Your task to perform on an android device: What's the news in Indonesia? Image 0: 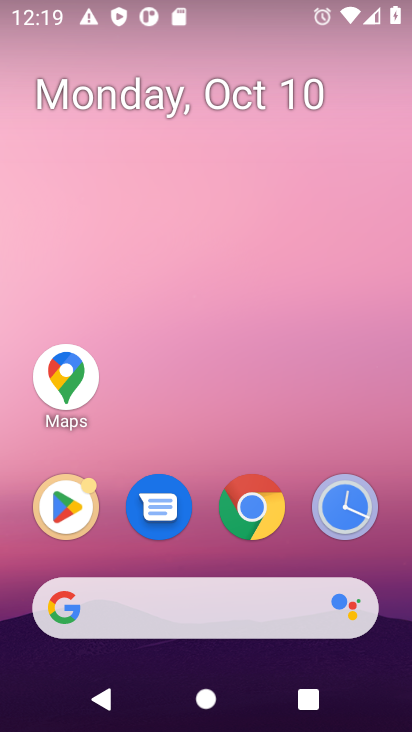
Step 0: press home button
Your task to perform on an android device: What's the news in Indonesia? Image 1: 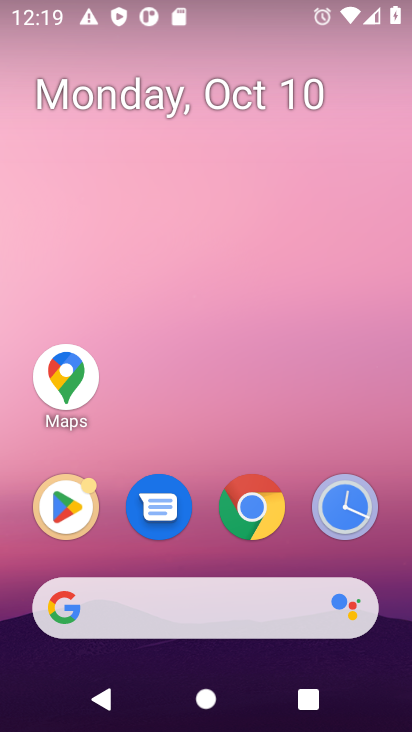
Step 1: click (232, 606)
Your task to perform on an android device: What's the news in Indonesia? Image 2: 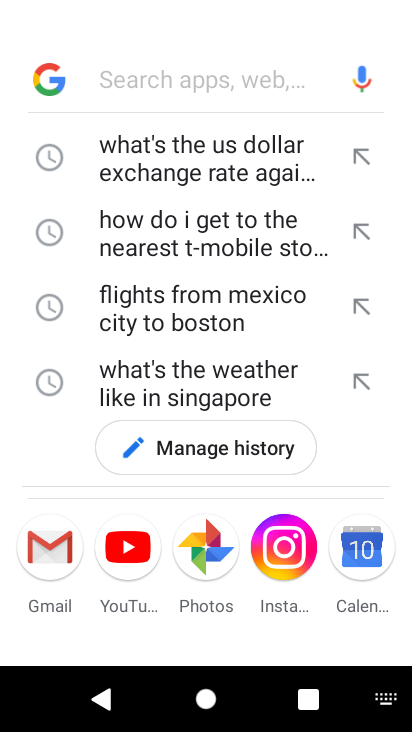
Step 2: type "What's the news in Indonesia"
Your task to perform on an android device: What's the news in Indonesia? Image 3: 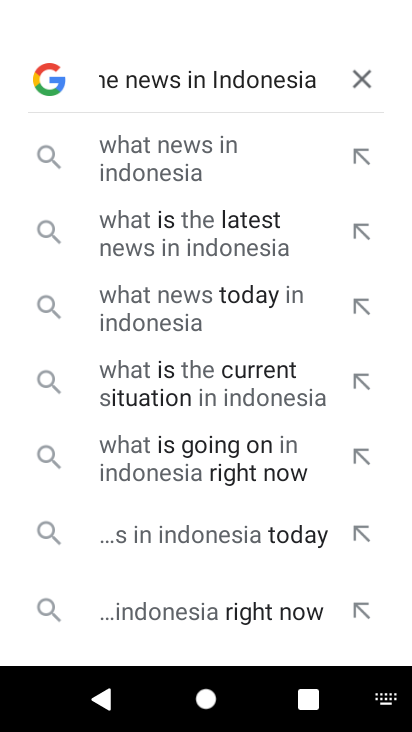
Step 3: press enter
Your task to perform on an android device: What's the news in Indonesia? Image 4: 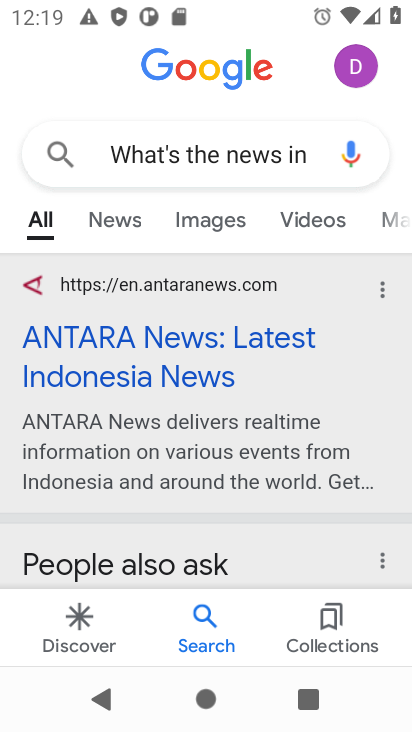
Step 4: click (165, 362)
Your task to perform on an android device: What's the news in Indonesia? Image 5: 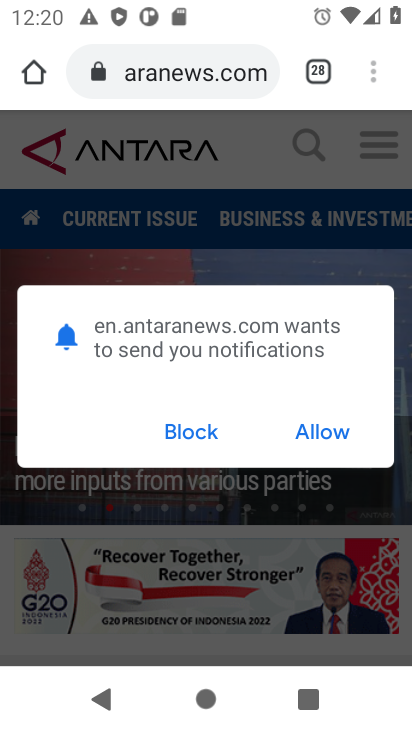
Step 5: click (177, 429)
Your task to perform on an android device: What's the news in Indonesia? Image 6: 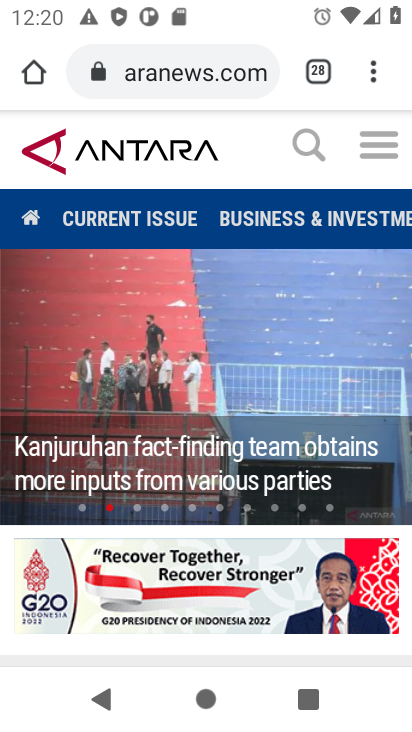
Step 6: task complete